Your task to perform on an android device: change the clock display to analog Image 0: 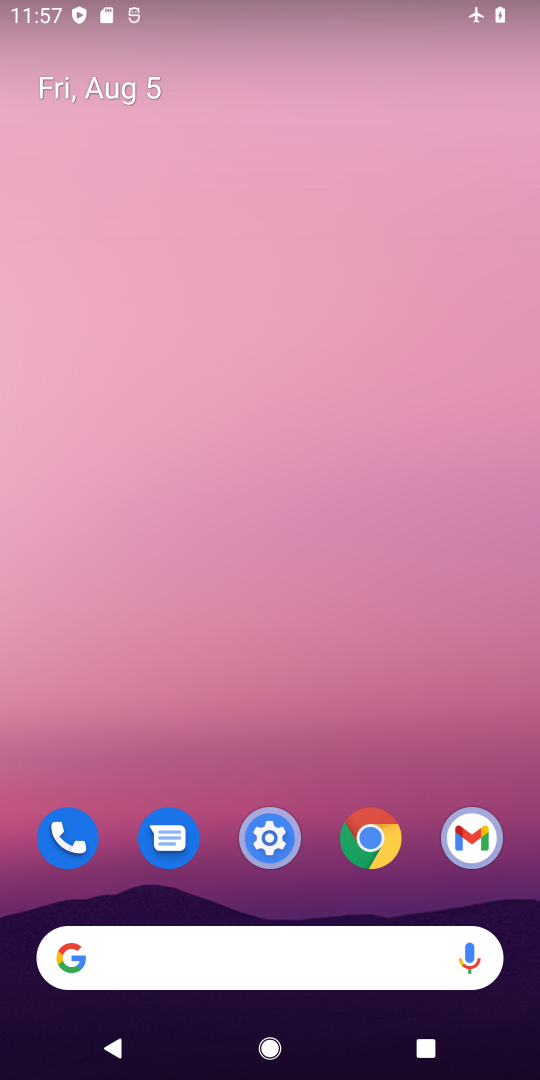
Step 0: press home button
Your task to perform on an android device: change the clock display to analog Image 1: 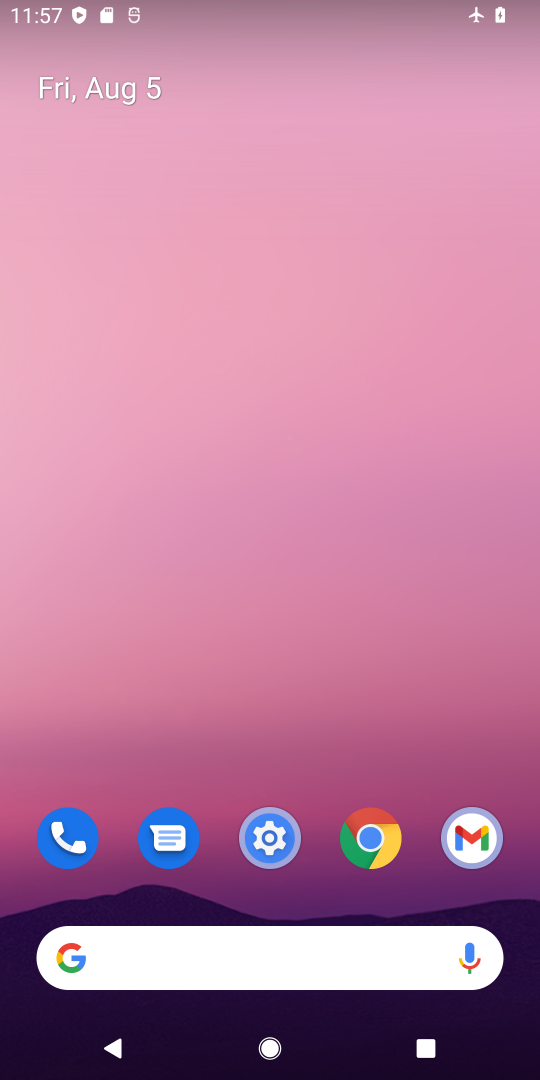
Step 1: drag from (252, 883) to (116, 406)
Your task to perform on an android device: change the clock display to analog Image 2: 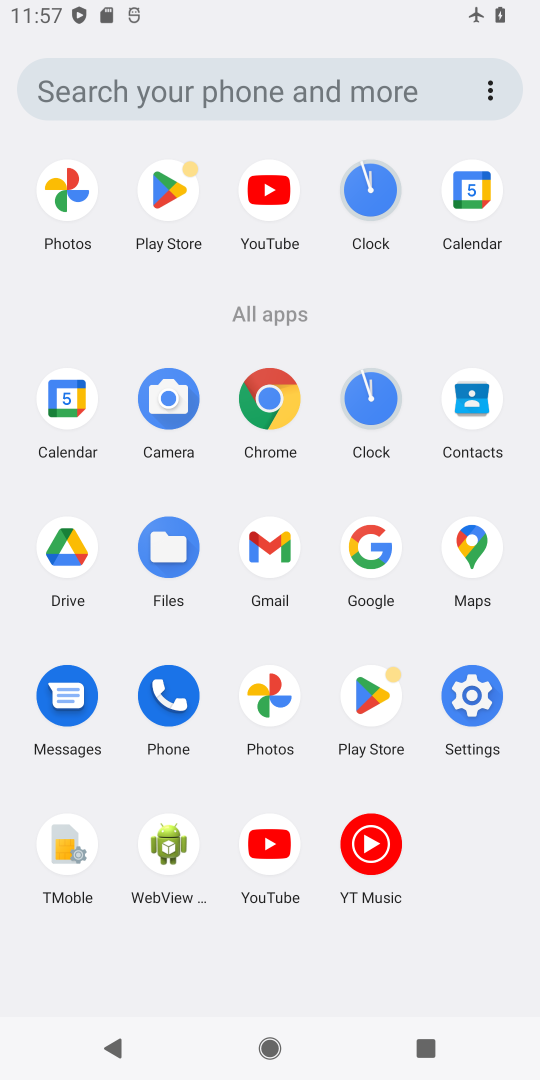
Step 2: click (373, 204)
Your task to perform on an android device: change the clock display to analog Image 3: 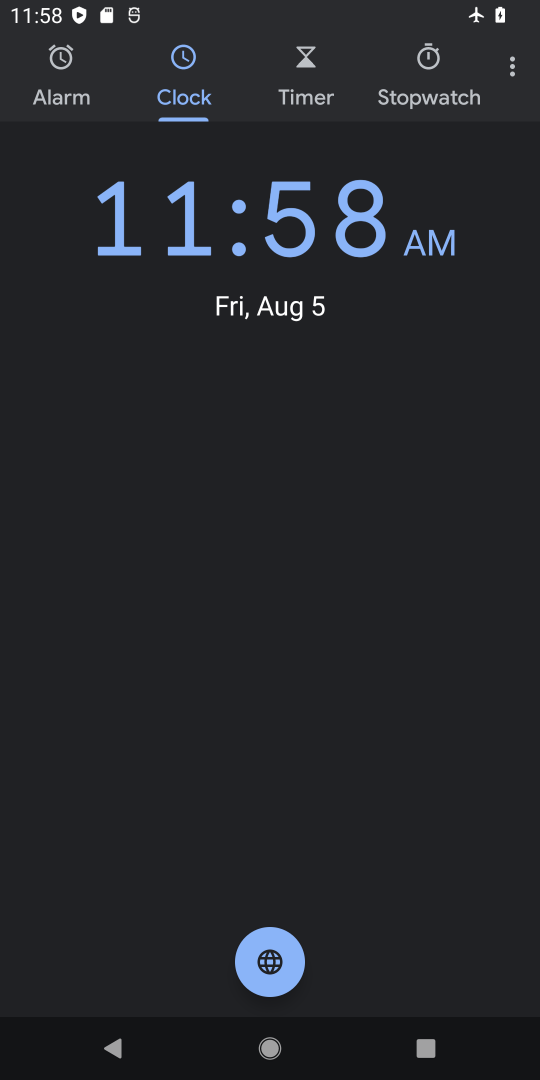
Step 3: click (514, 66)
Your task to perform on an android device: change the clock display to analog Image 4: 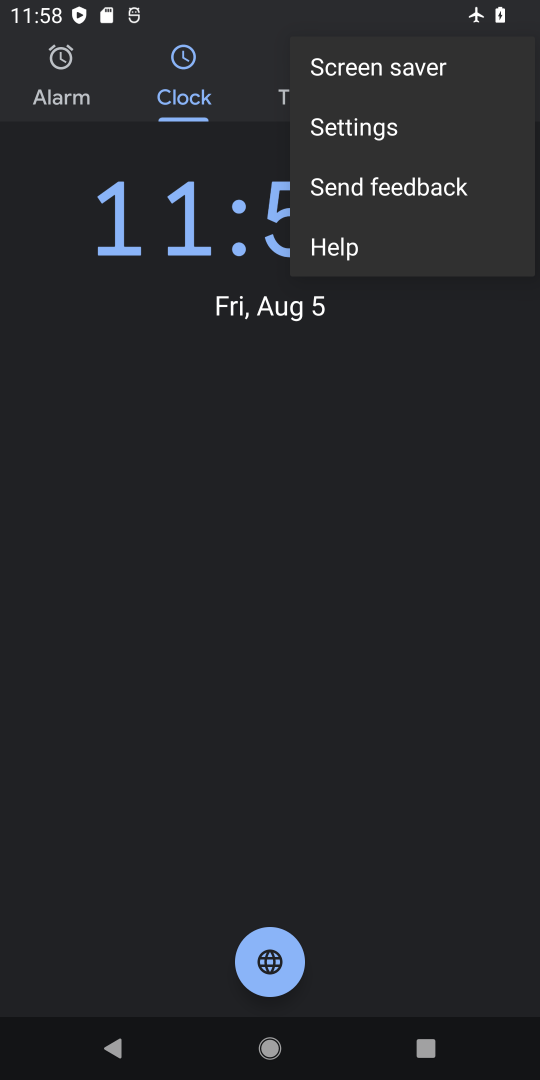
Step 4: click (383, 136)
Your task to perform on an android device: change the clock display to analog Image 5: 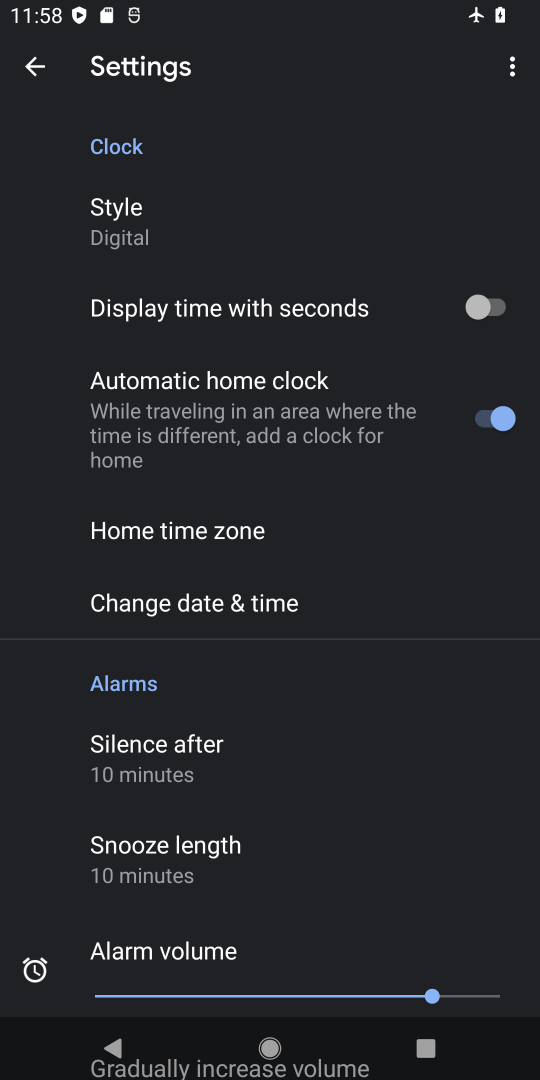
Step 5: click (129, 239)
Your task to perform on an android device: change the clock display to analog Image 6: 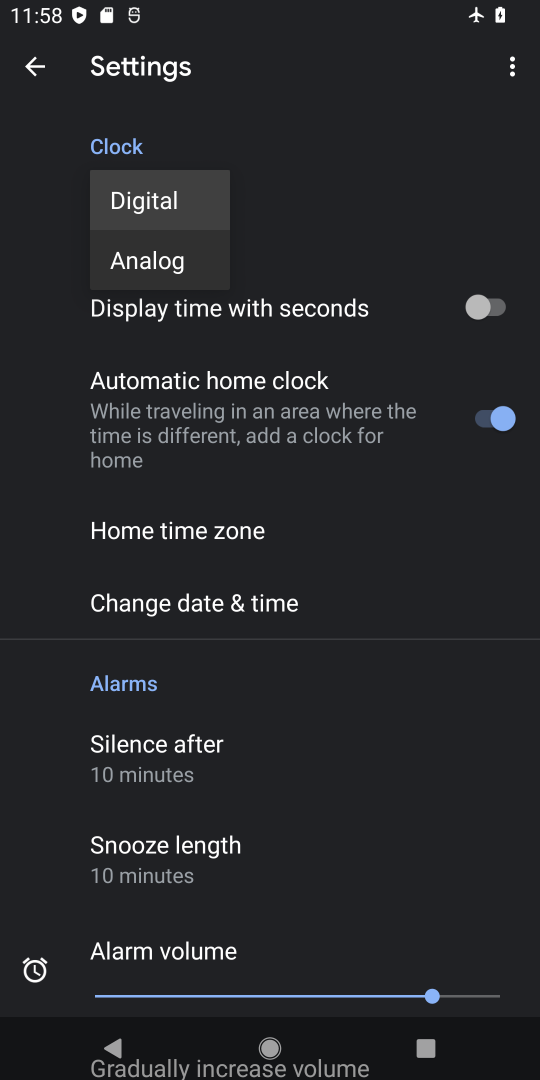
Step 6: click (133, 261)
Your task to perform on an android device: change the clock display to analog Image 7: 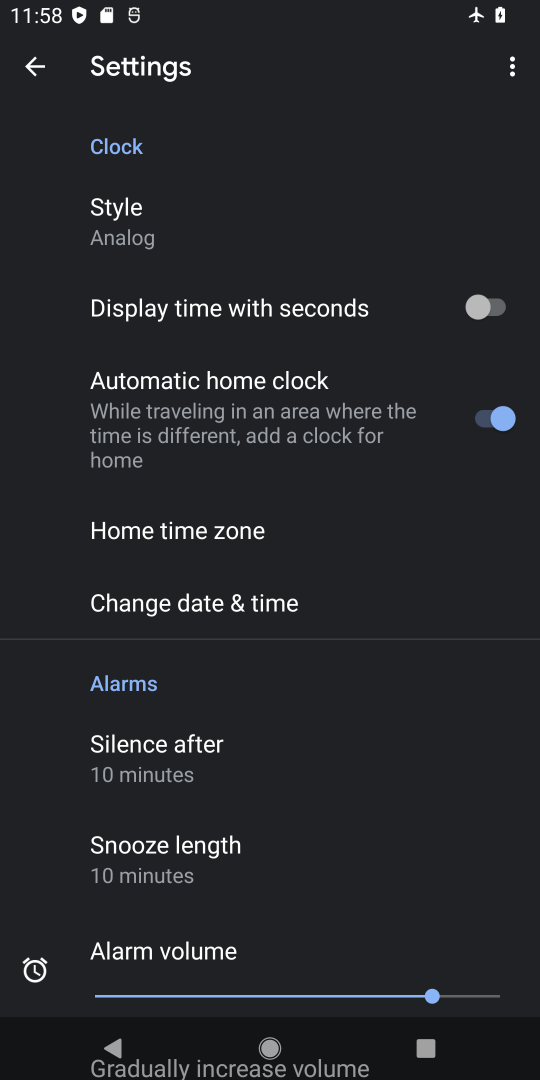
Step 7: task complete